Your task to perform on an android device: allow notifications from all sites in the chrome app Image 0: 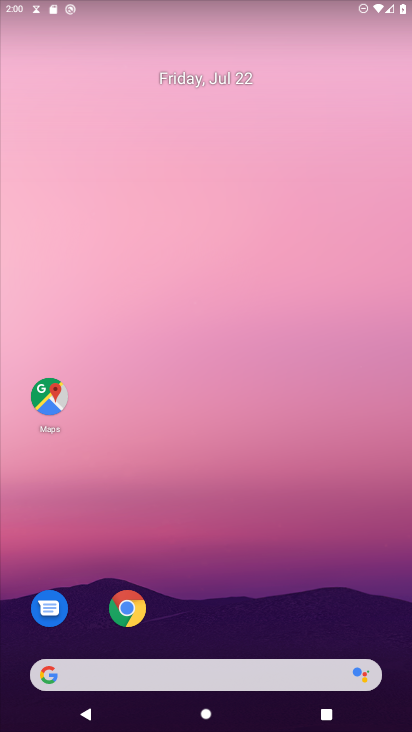
Step 0: click (128, 603)
Your task to perform on an android device: allow notifications from all sites in the chrome app Image 1: 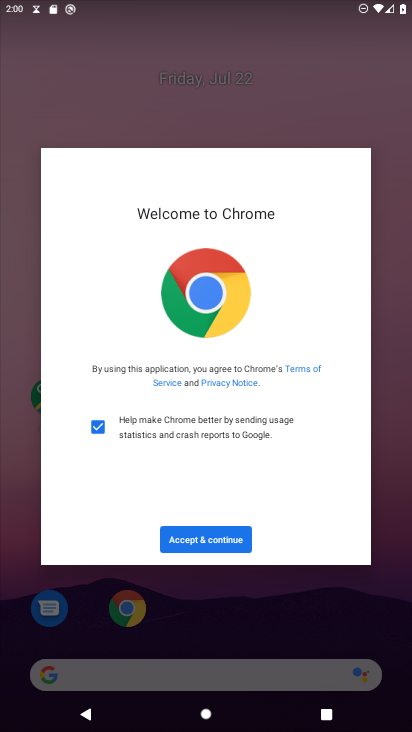
Step 1: click (206, 538)
Your task to perform on an android device: allow notifications from all sites in the chrome app Image 2: 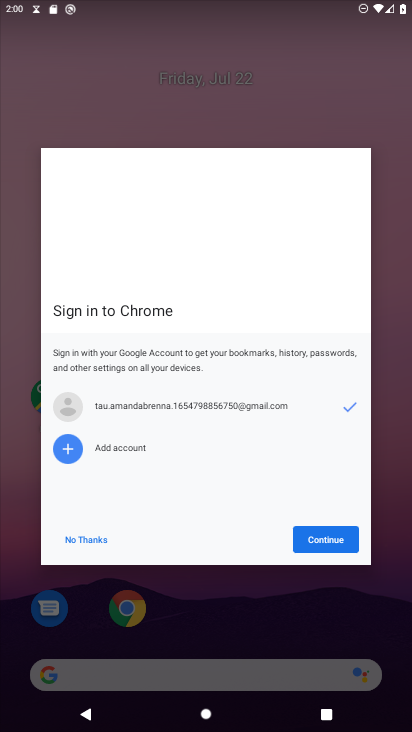
Step 2: click (324, 536)
Your task to perform on an android device: allow notifications from all sites in the chrome app Image 3: 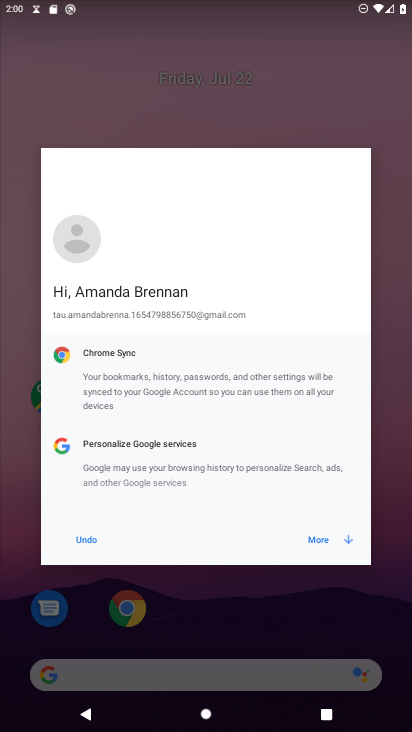
Step 3: click (324, 536)
Your task to perform on an android device: allow notifications from all sites in the chrome app Image 4: 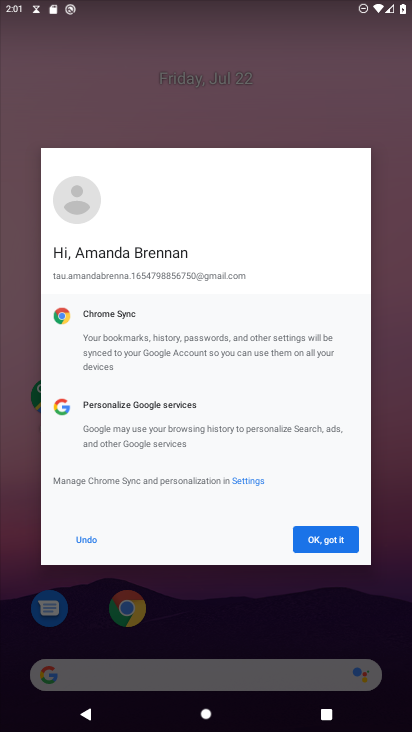
Step 4: click (324, 536)
Your task to perform on an android device: allow notifications from all sites in the chrome app Image 5: 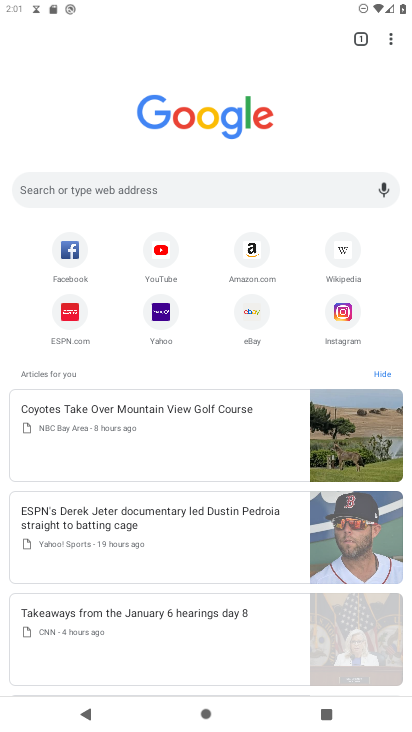
Step 5: click (396, 35)
Your task to perform on an android device: allow notifications from all sites in the chrome app Image 6: 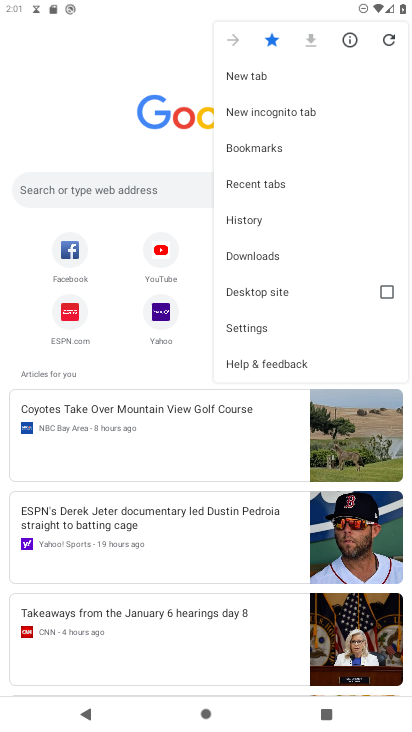
Step 6: click (247, 328)
Your task to perform on an android device: allow notifications from all sites in the chrome app Image 7: 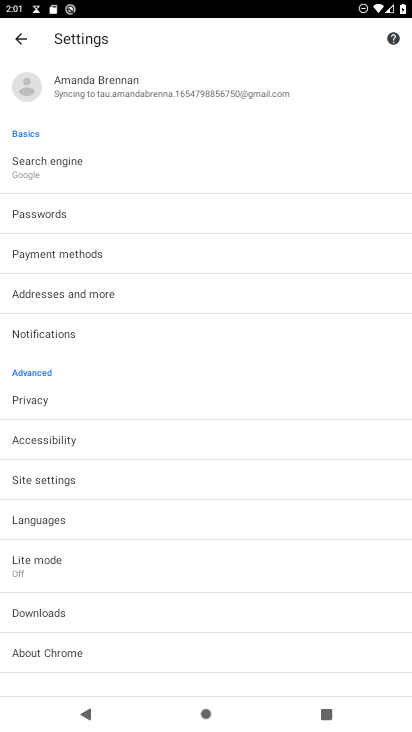
Step 7: click (35, 337)
Your task to perform on an android device: allow notifications from all sites in the chrome app Image 8: 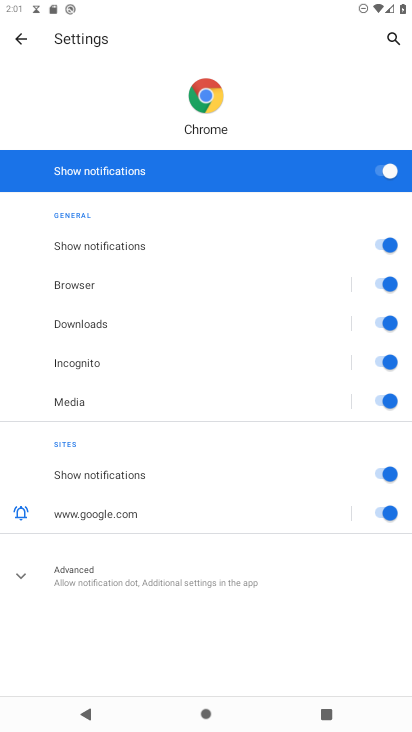
Step 8: task complete